Your task to perform on an android device: add a contact Image 0: 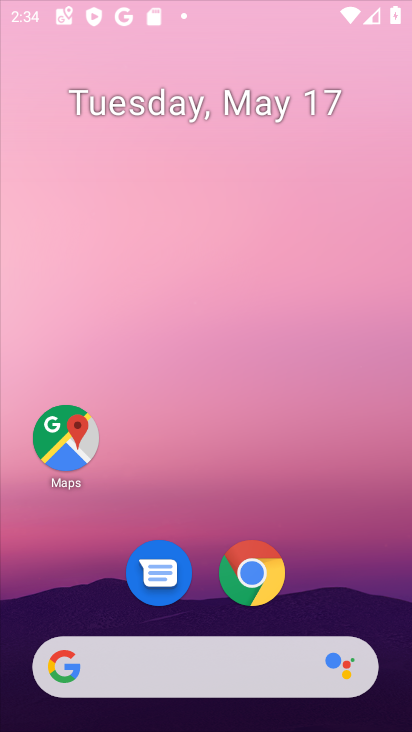
Step 0: click (352, 131)
Your task to perform on an android device: add a contact Image 1: 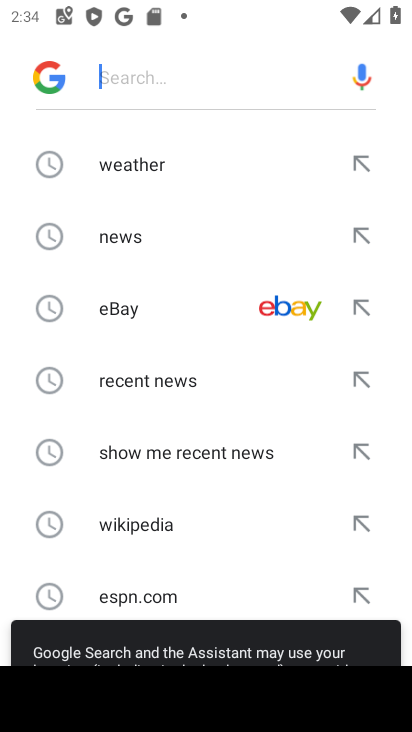
Step 1: press home button
Your task to perform on an android device: add a contact Image 2: 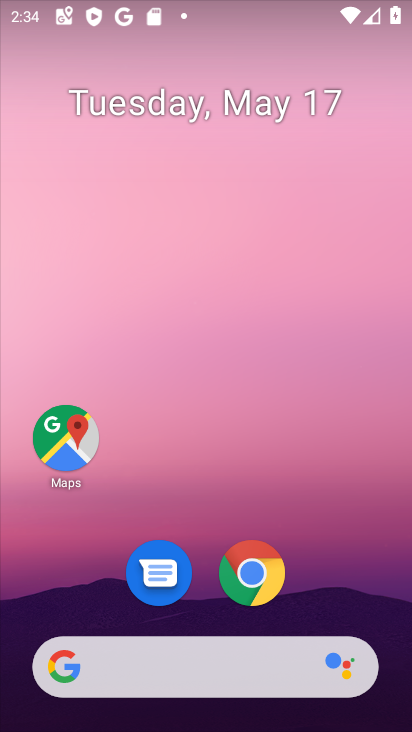
Step 2: drag from (344, 587) to (312, 176)
Your task to perform on an android device: add a contact Image 3: 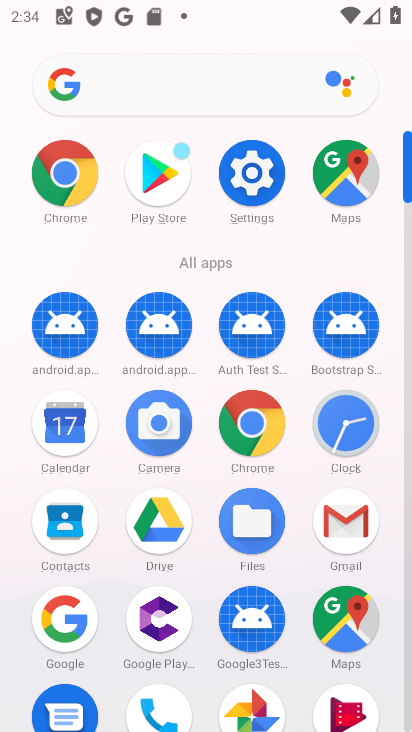
Step 3: drag from (294, 602) to (285, 401)
Your task to perform on an android device: add a contact Image 4: 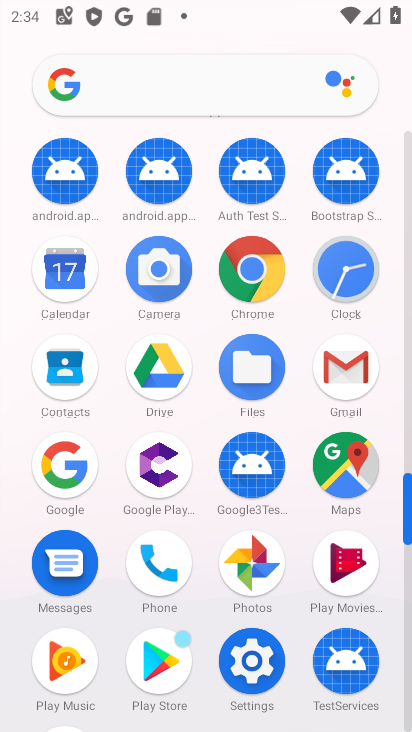
Step 4: click (56, 393)
Your task to perform on an android device: add a contact Image 5: 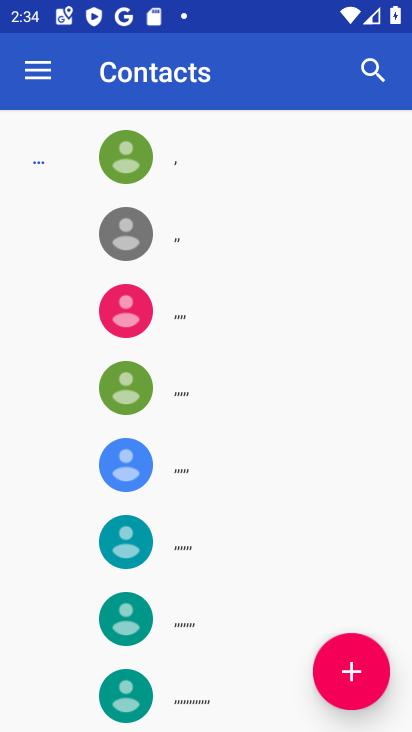
Step 5: click (338, 664)
Your task to perform on an android device: add a contact Image 6: 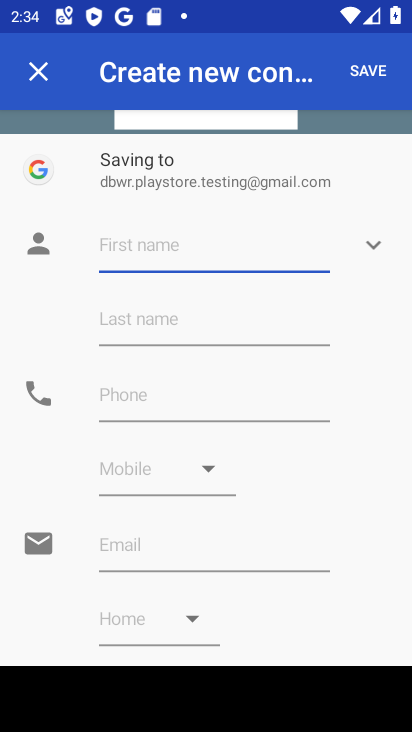
Step 6: type "aniket"
Your task to perform on an android device: add a contact Image 7: 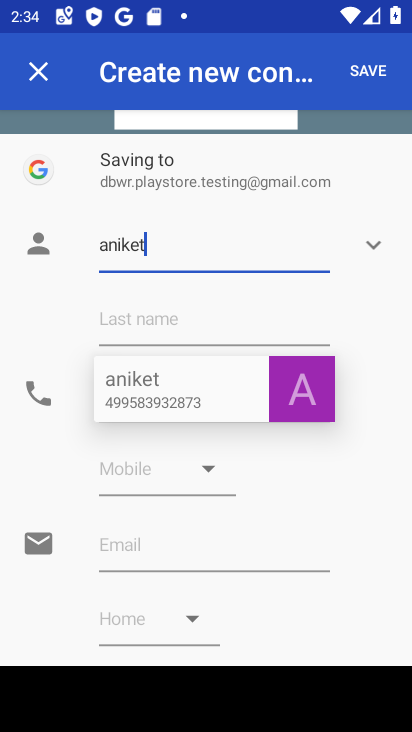
Step 7: click (190, 409)
Your task to perform on an android device: add a contact Image 8: 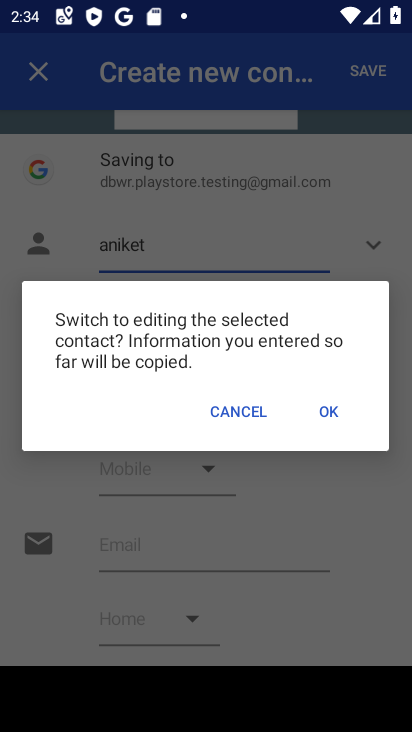
Step 8: click (242, 413)
Your task to perform on an android device: add a contact Image 9: 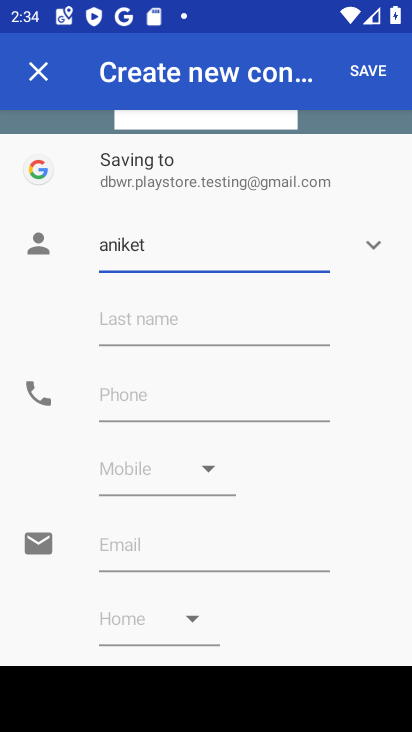
Step 9: click (214, 404)
Your task to perform on an android device: add a contact Image 10: 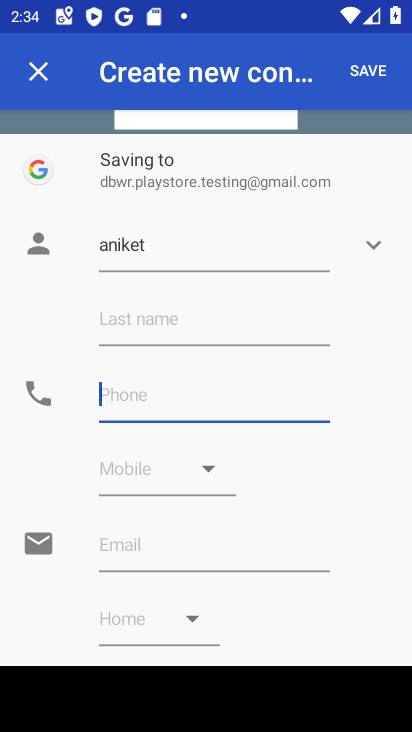
Step 10: type "39874938329"
Your task to perform on an android device: add a contact Image 11: 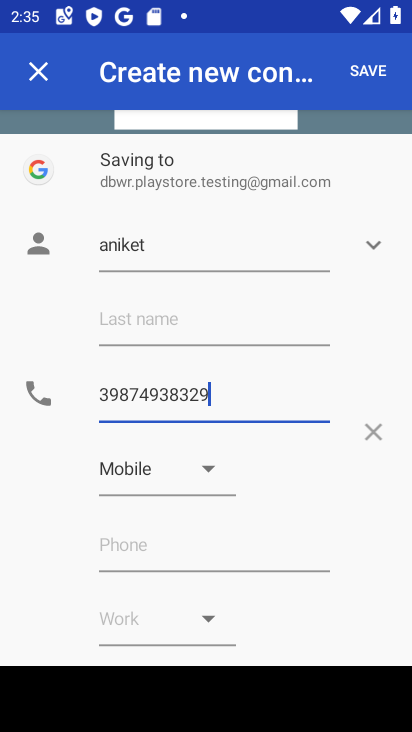
Step 11: task complete